Your task to perform on an android device: Open display settings Image 0: 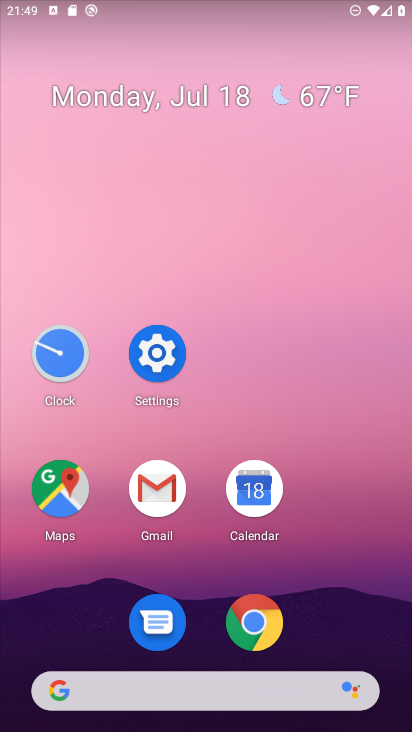
Step 0: click (142, 357)
Your task to perform on an android device: Open display settings Image 1: 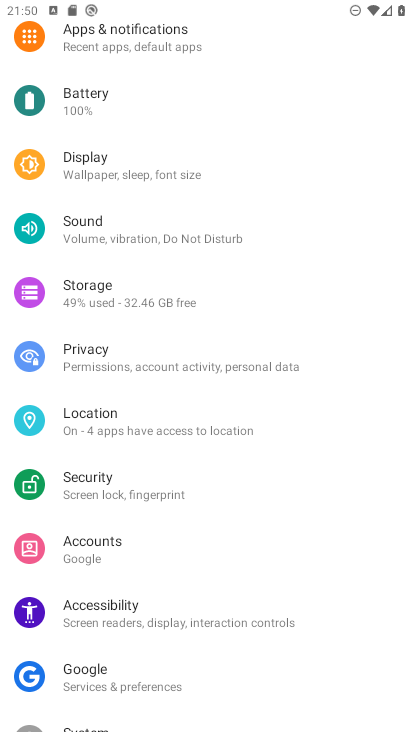
Step 1: click (79, 154)
Your task to perform on an android device: Open display settings Image 2: 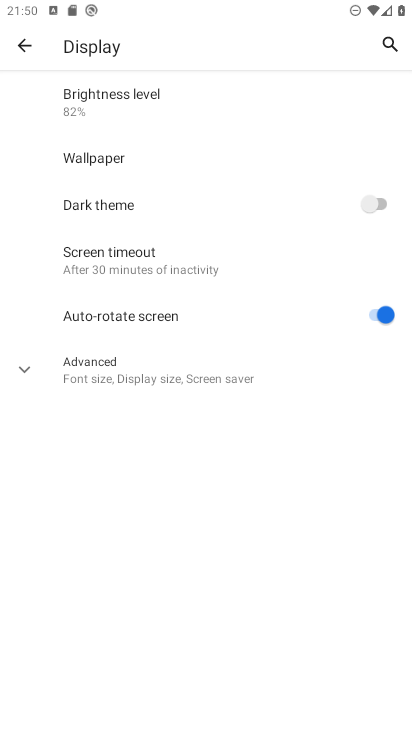
Step 2: click (35, 370)
Your task to perform on an android device: Open display settings Image 3: 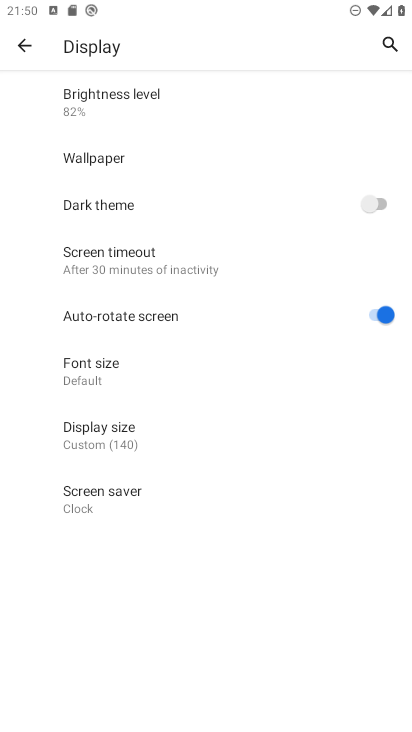
Step 3: task complete